Your task to perform on an android device: Open Google Chrome and click the shortcut for Amazon.com Image 0: 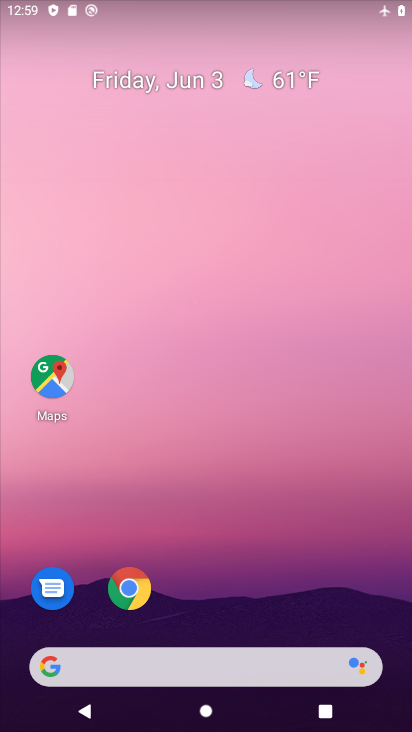
Step 0: click (126, 589)
Your task to perform on an android device: Open Google Chrome and click the shortcut for Amazon.com Image 1: 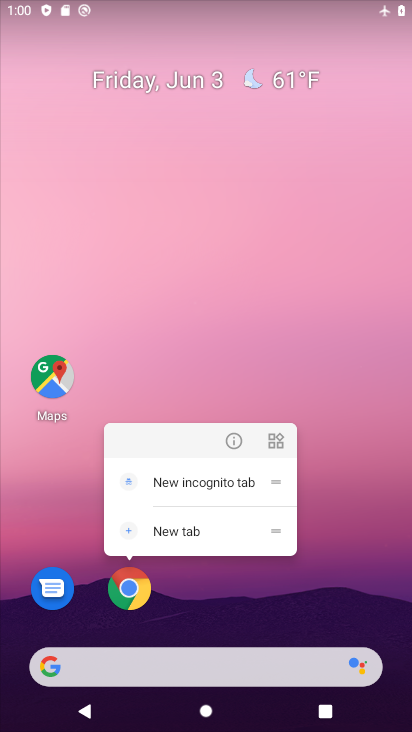
Step 1: click (124, 593)
Your task to perform on an android device: Open Google Chrome and click the shortcut for Amazon.com Image 2: 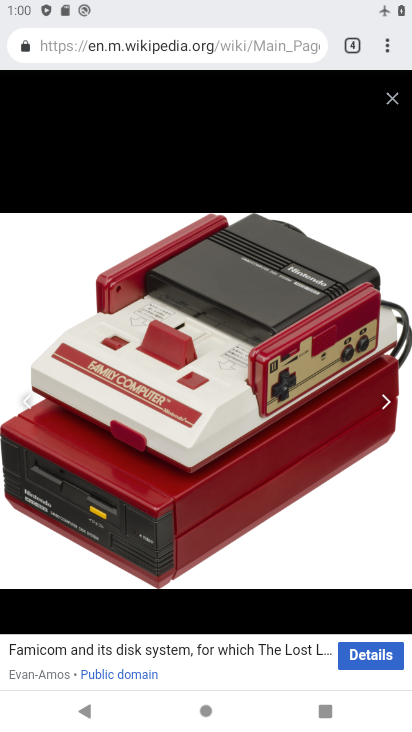
Step 2: click (358, 51)
Your task to perform on an android device: Open Google Chrome and click the shortcut for Amazon.com Image 3: 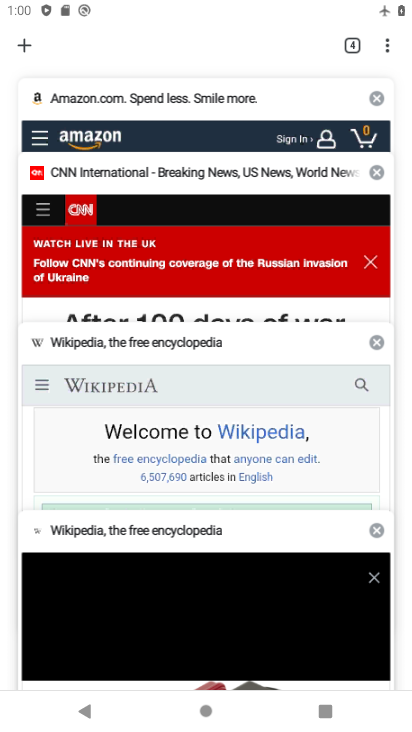
Step 3: click (381, 103)
Your task to perform on an android device: Open Google Chrome and click the shortcut for Amazon.com Image 4: 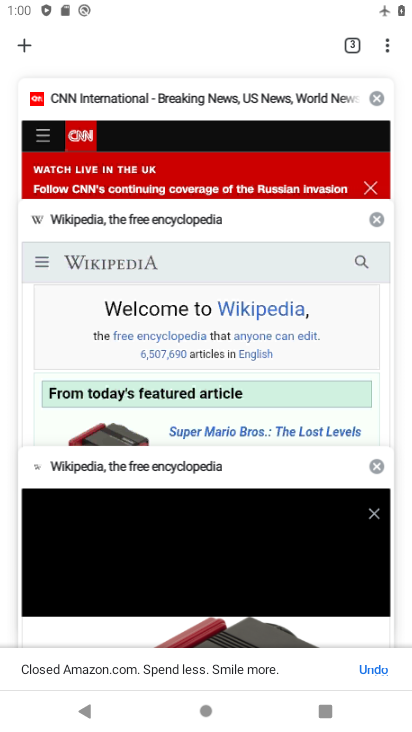
Step 4: click (381, 96)
Your task to perform on an android device: Open Google Chrome and click the shortcut for Amazon.com Image 5: 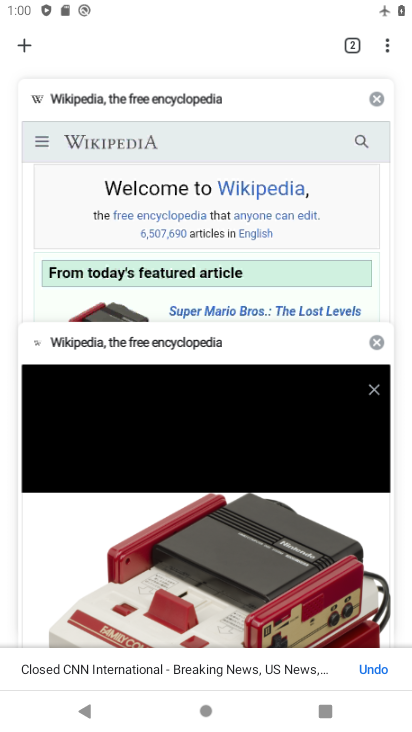
Step 5: click (379, 108)
Your task to perform on an android device: Open Google Chrome and click the shortcut for Amazon.com Image 6: 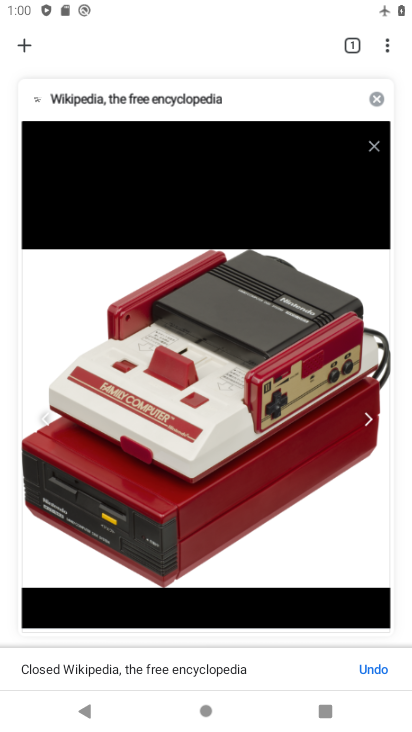
Step 6: click (379, 106)
Your task to perform on an android device: Open Google Chrome and click the shortcut for Amazon.com Image 7: 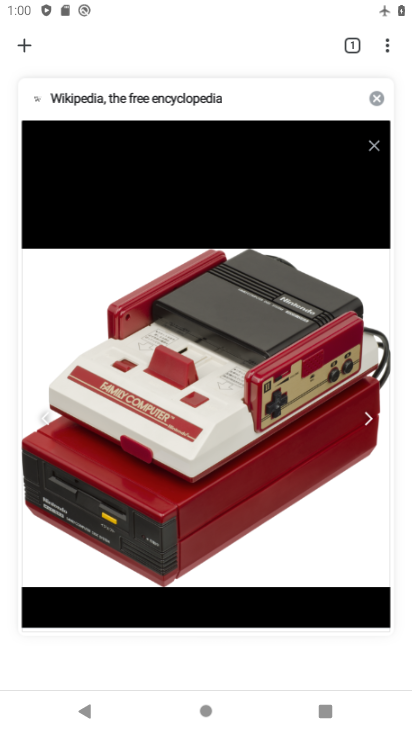
Step 7: click (376, 90)
Your task to perform on an android device: Open Google Chrome and click the shortcut for Amazon.com Image 8: 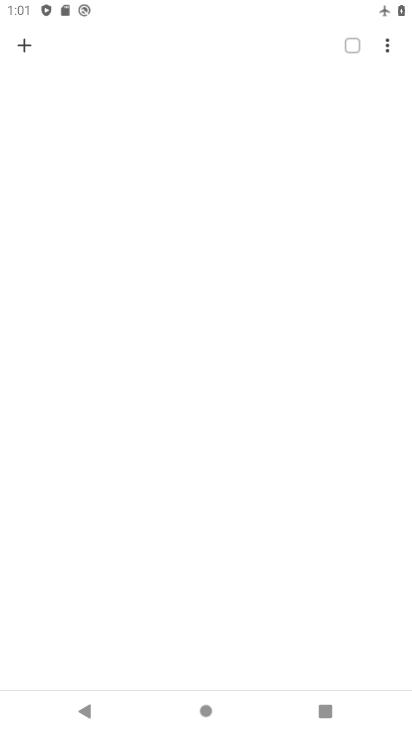
Step 8: click (18, 46)
Your task to perform on an android device: Open Google Chrome and click the shortcut for Amazon.com Image 9: 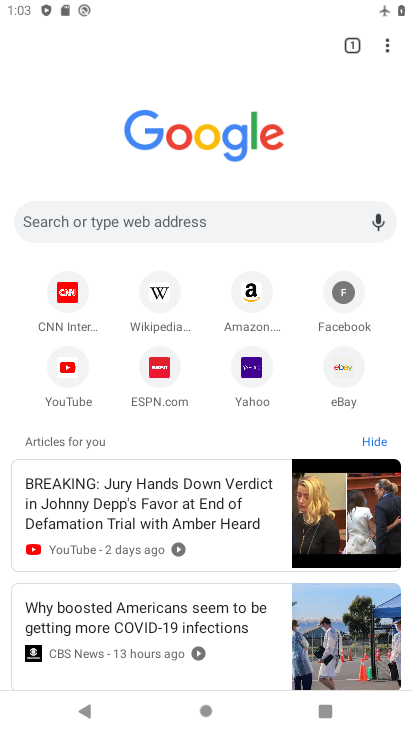
Step 9: press home button
Your task to perform on an android device: Open Google Chrome and click the shortcut for Amazon.com Image 10: 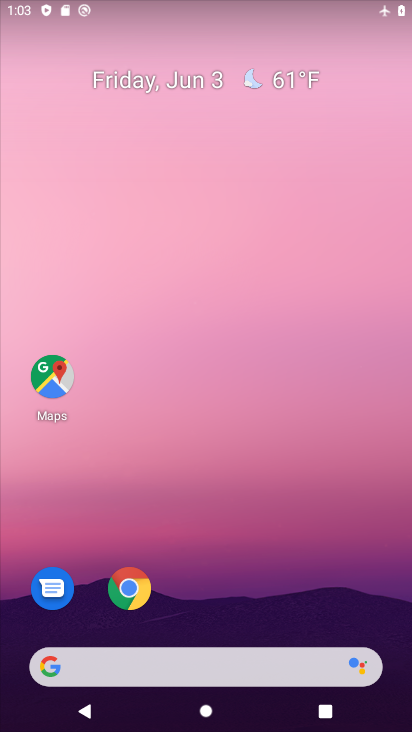
Step 10: click (132, 586)
Your task to perform on an android device: Open Google Chrome and click the shortcut for Amazon.com Image 11: 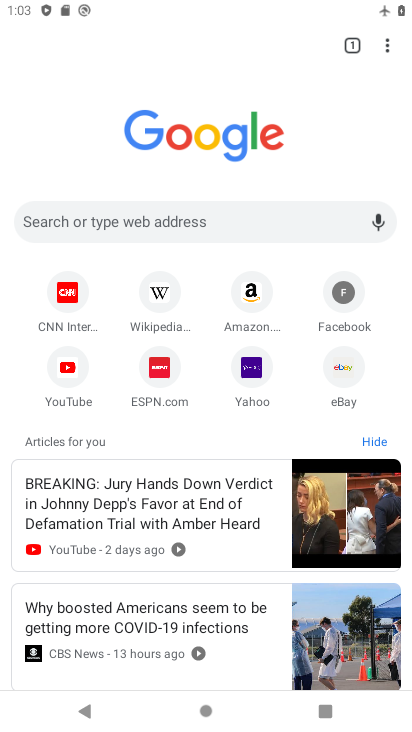
Step 11: click (260, 292)
Your task to perform on an android device: Open Google Chrome and click the shortcut for Amazon.com Image 12: 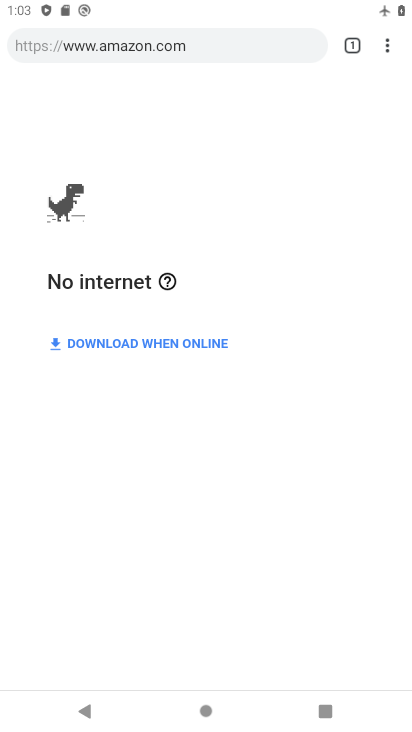
Step 12: drag from (294, 7) to (258, 524)
Your task to perform on an android device: Open Google Chrome and click the shortcut for Amazon.com Image 13: 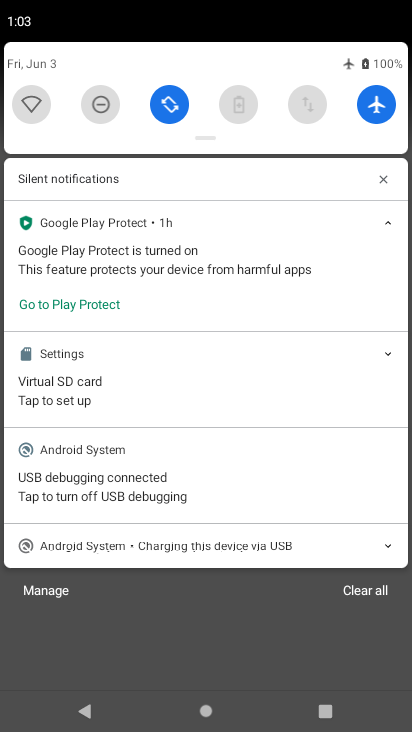
Step 13: click (382, 99)
Your task to perform on an android device: Open Google Chrome and click the shortcut for Amazon.com Image 14: 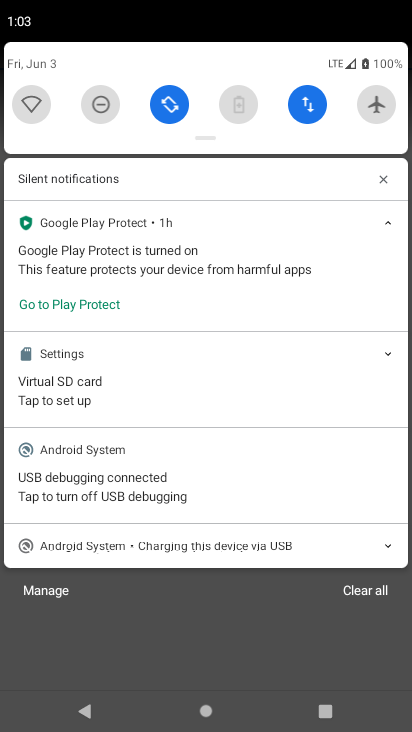
Step 14: task complete